Your task to perform on an android device: Open the clock Image 0: 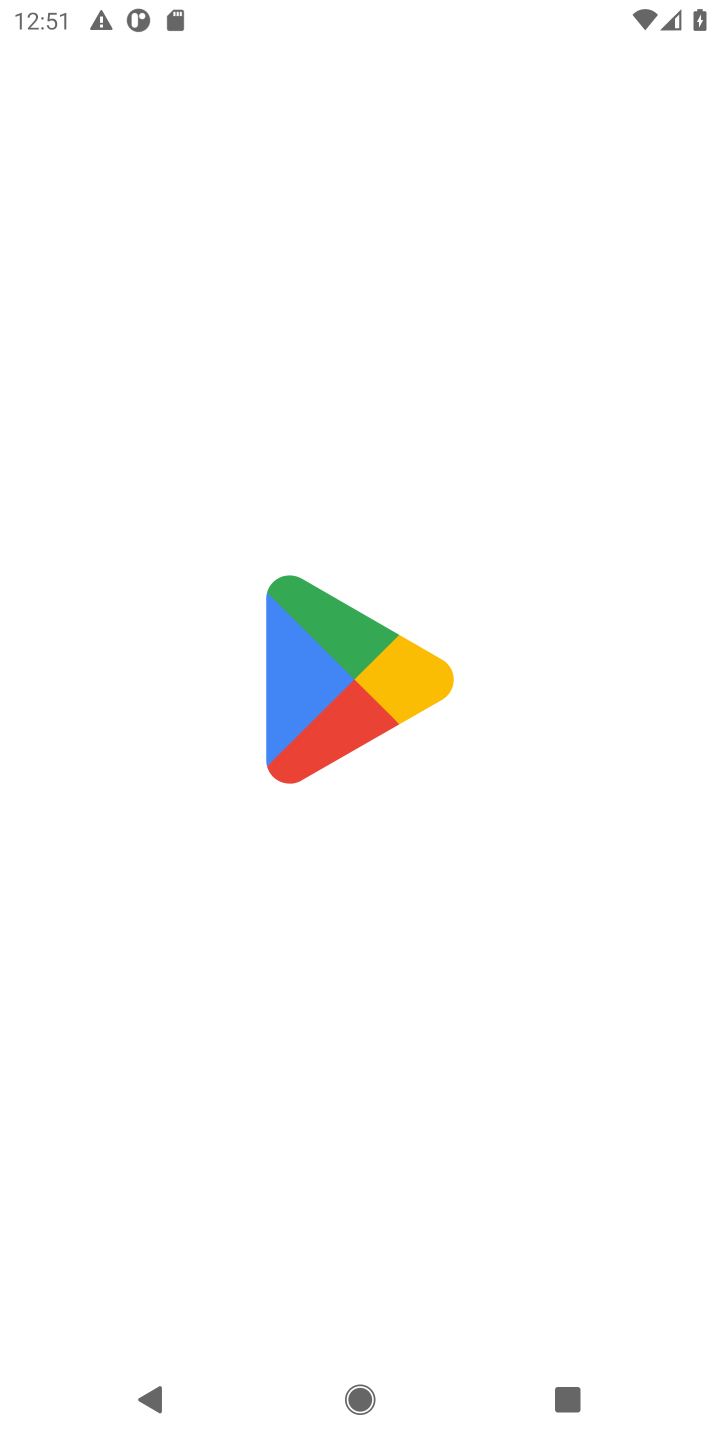
Step 0: press home button
Your task to perform on an android device: Open the clock Image 1: 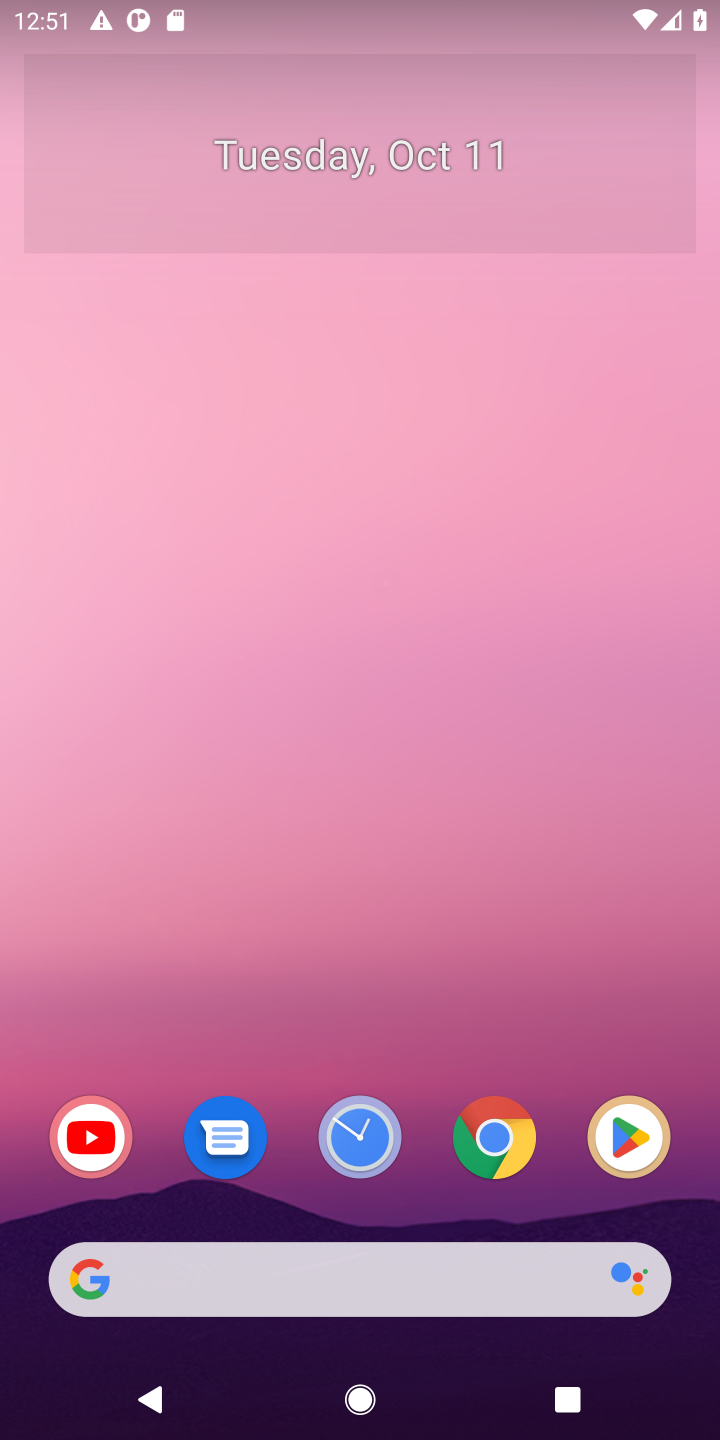
Step 1: click (346, 1147)
Your task to perform on an android device: Open the clock Image 2: 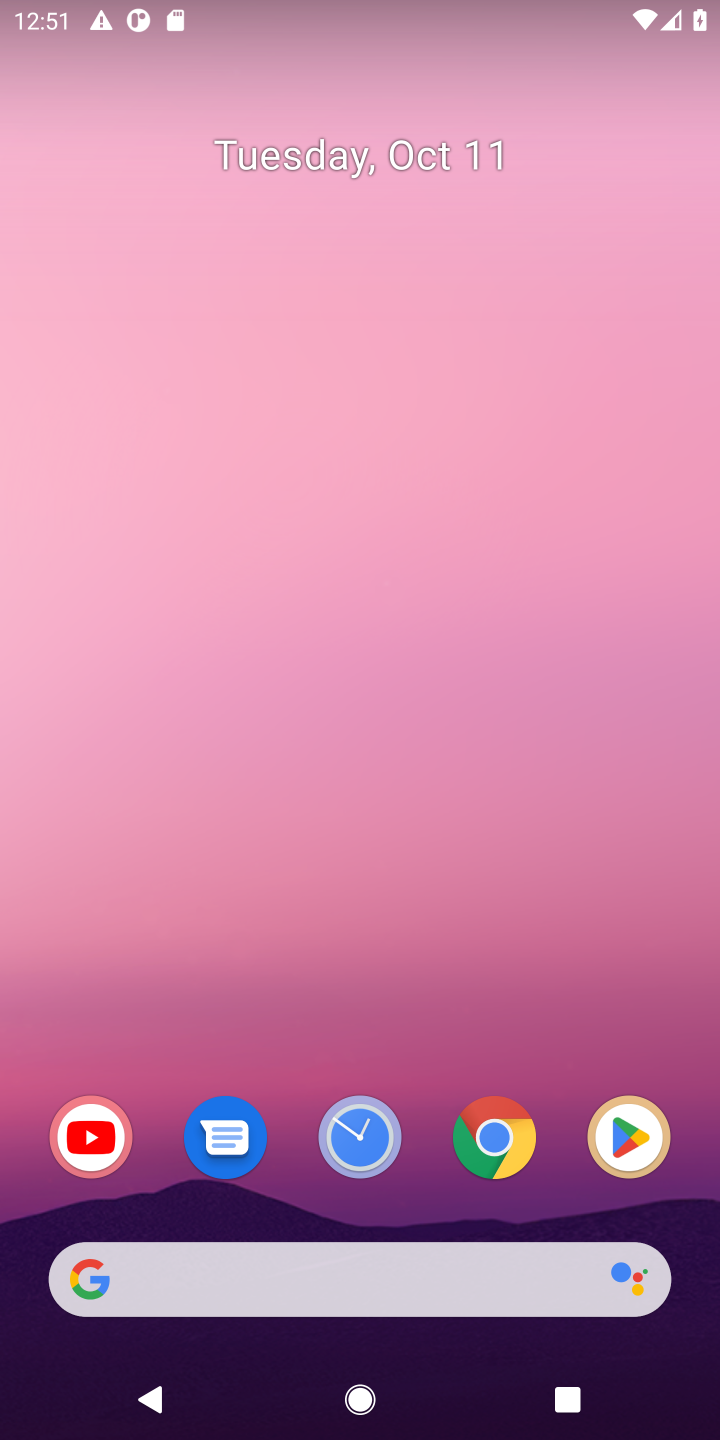
Step 2: click (364, 1122)
Your task to perform on an android device: Open the clock Image 3: 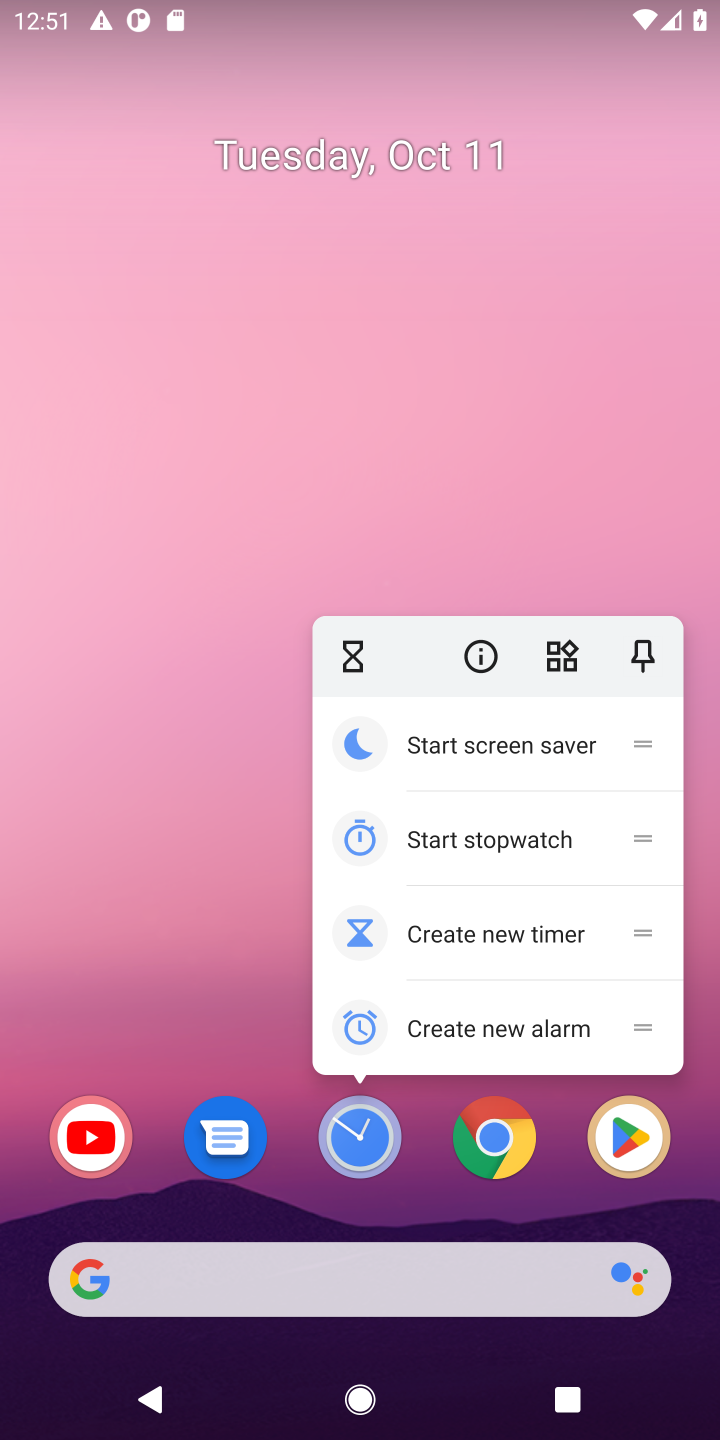
Step 3: click (364, 1122)
Your task to perform on an android device: Open the clock Image 4: 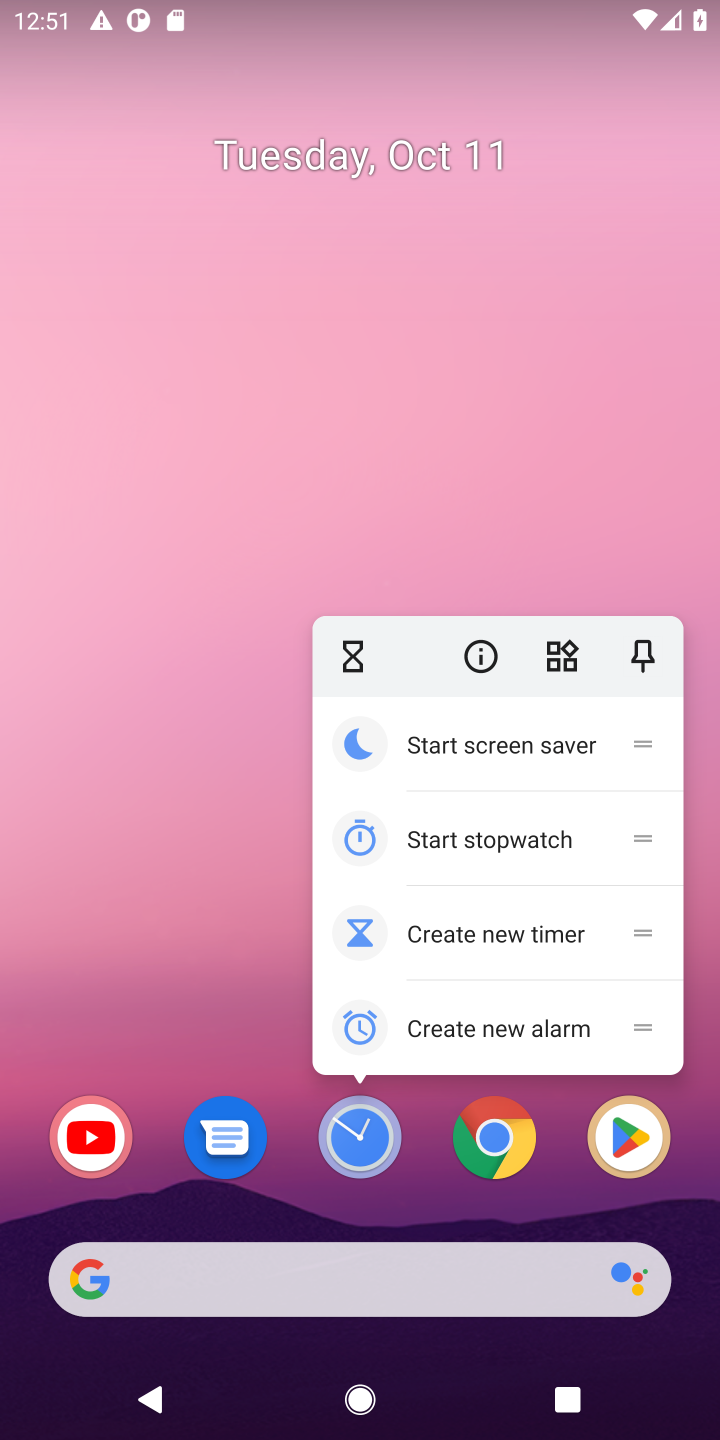
Step 4: click (364, 1122)
Your task to perform on an android device: Open the clock Image 5: 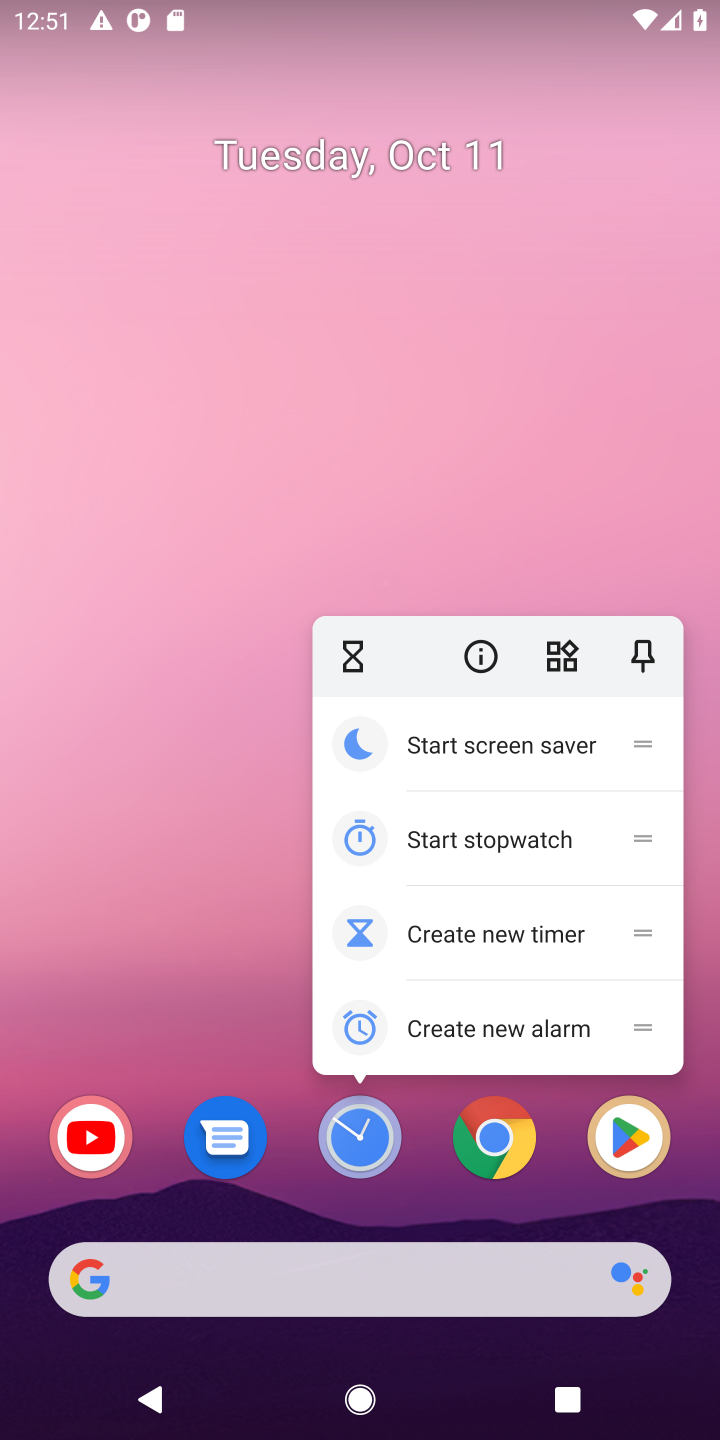
Step 5: click (364, 1122)
Your task to perform on an android device: Open the clock Image 6: 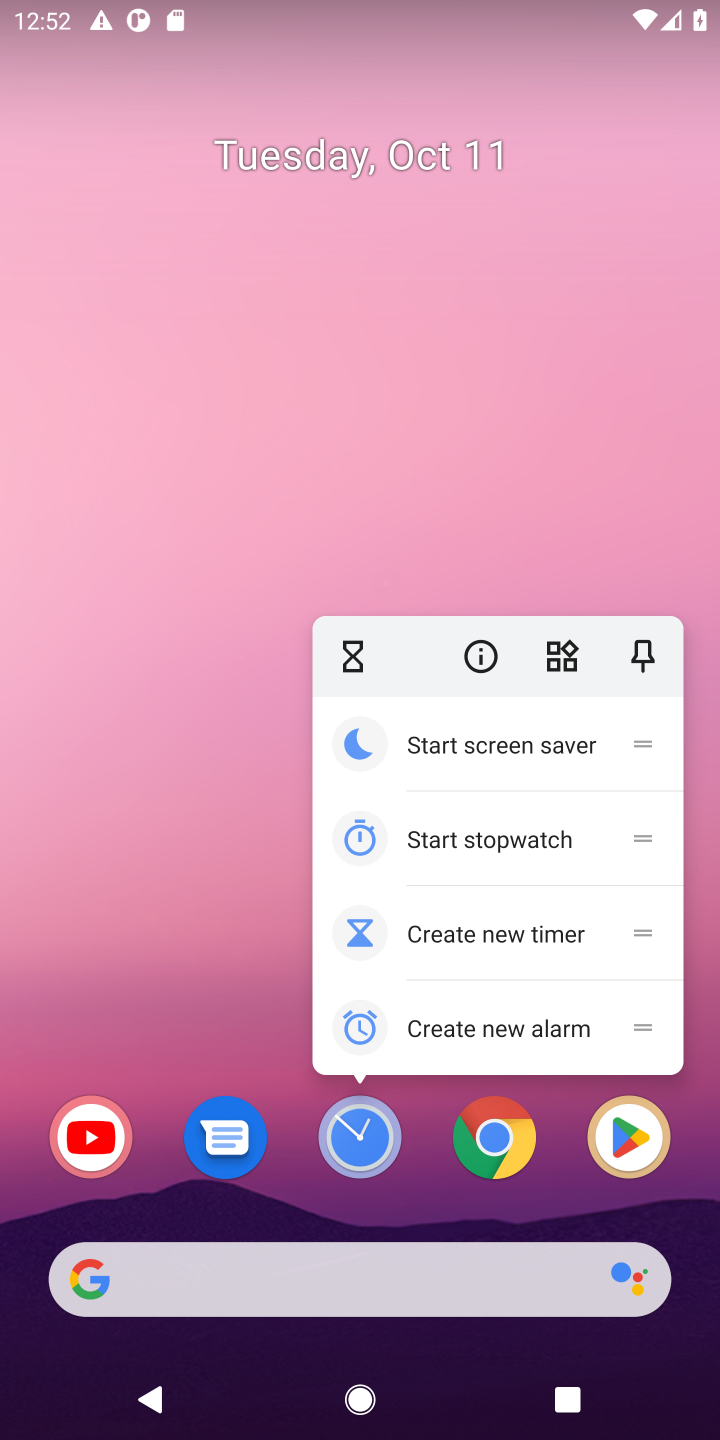
Step 6: click (365, 1154)
Your task to perform on an android device: Open the clock Image 7: 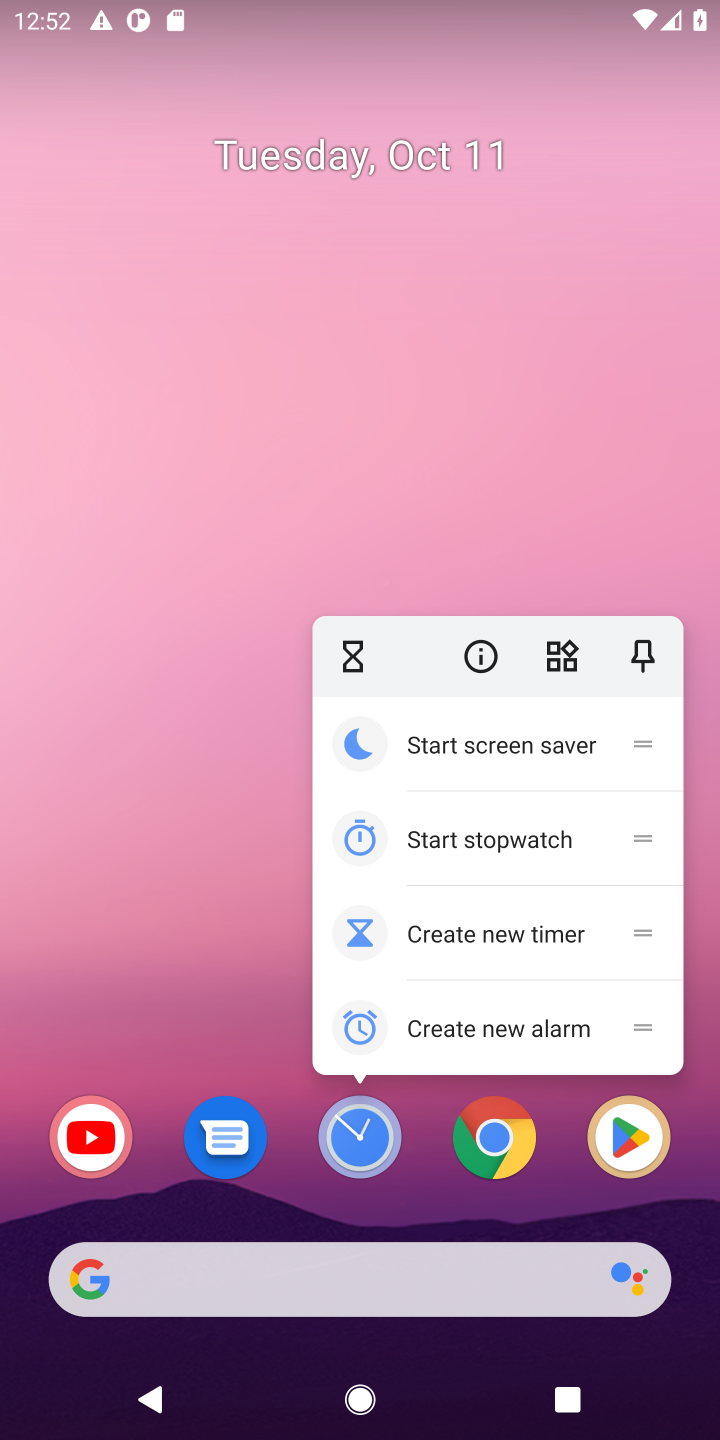
Step 7: click (342, 1136)
Your task to perform on an android device: Open the clock Image 8: 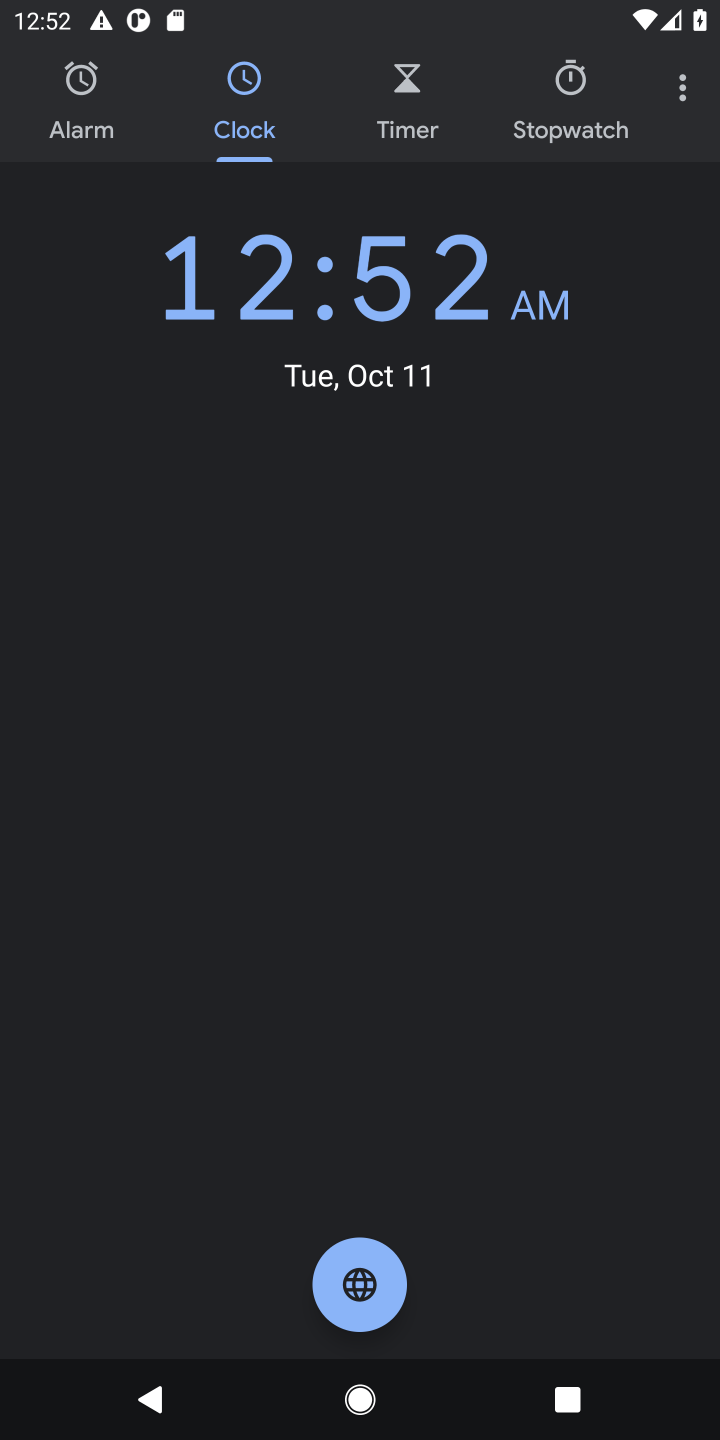
Step 8: task complete